Your task to perform on an android device: add a contact Image 0: 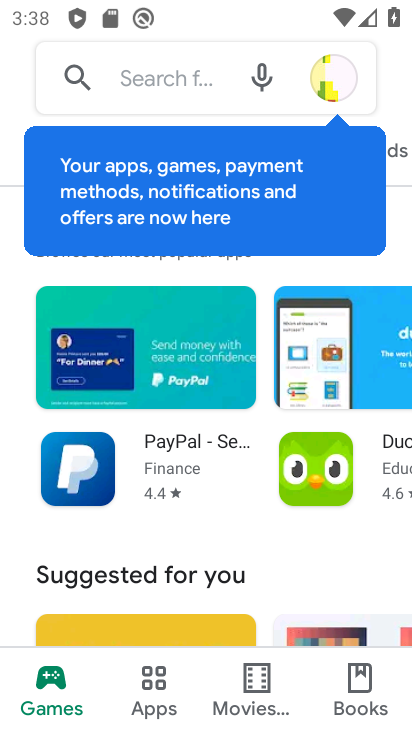
Step 0: press home button
Your task to perform on an android device: add a contact Image 1: 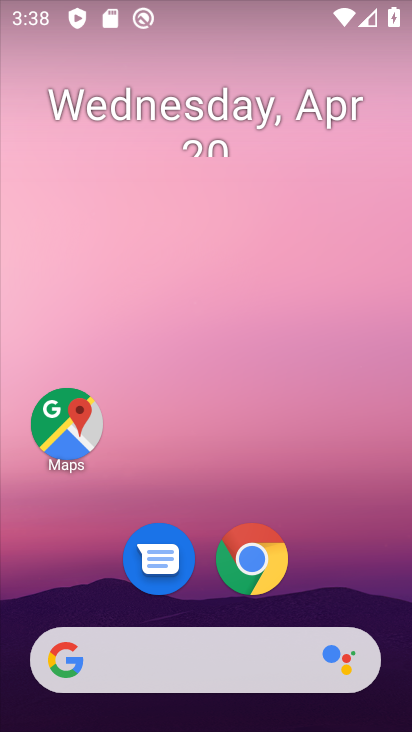
Step 1: drag from (189, 615) to (275, 77)
Your task to perform on an android device: add a contact Image 2: 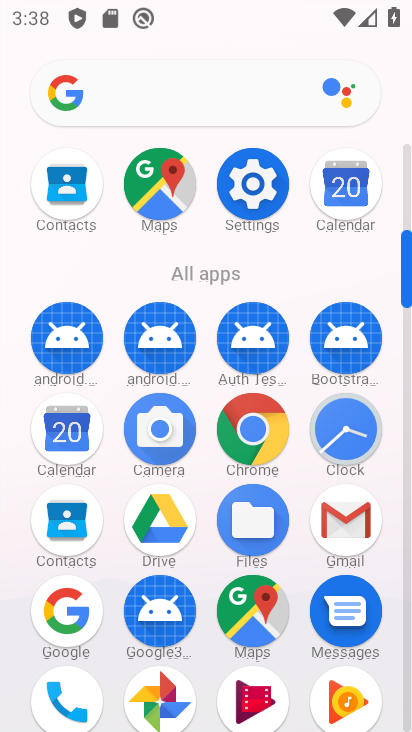
Step 2: drag from (201, 630) to (208, 421)
Your task to perform on an android device: add a contact Image 3: 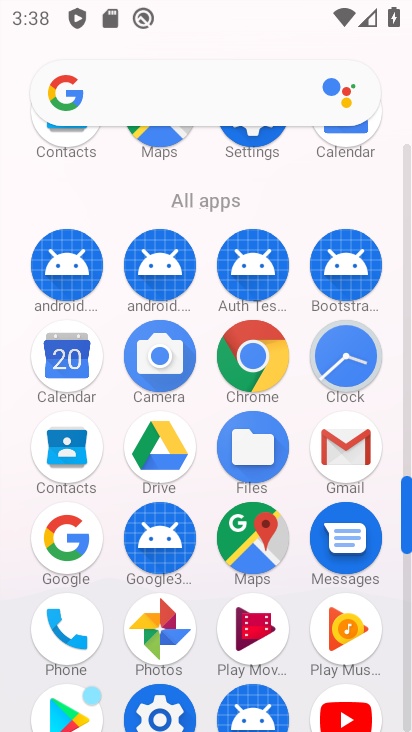
Step 3: drag from (200, 683) to (249, 280)
Your task to perform on an android device: add a contact Image 4: 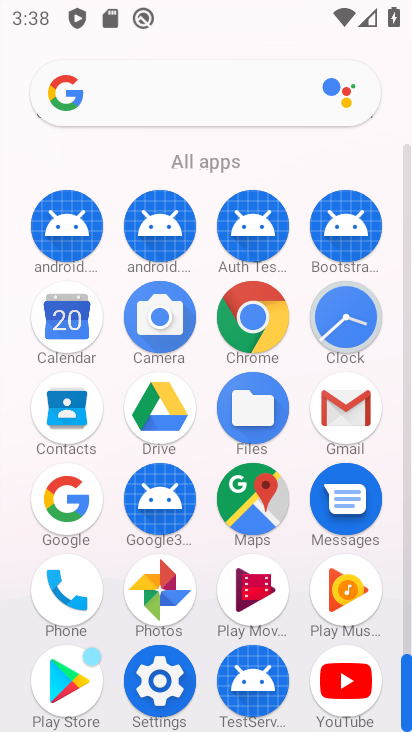
Step 4: click (64, 404)
Your task to perform on an android device: add a contact Image 5: 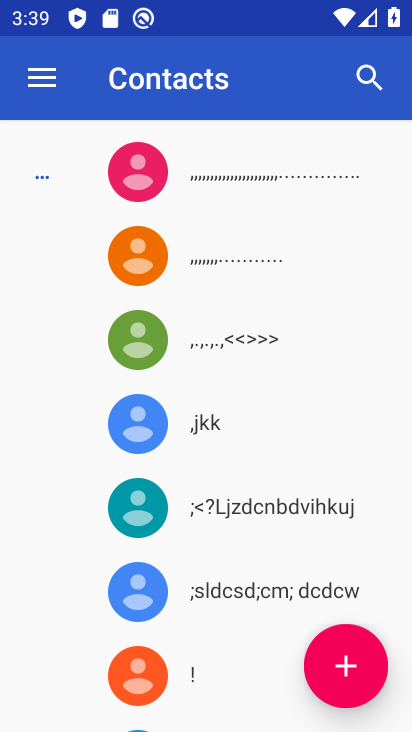
Step 5: click (336, 671)
Your task to perform on an android device: add a contact Image 6: 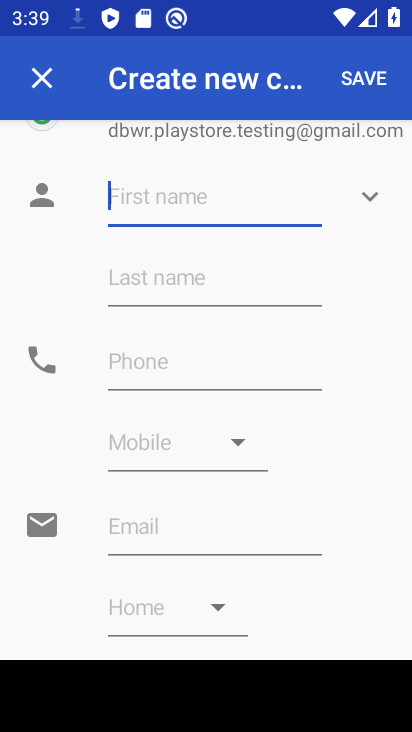
Step 6: click (191, 186)
Your task to perform on an android device: add a contact Image 7: 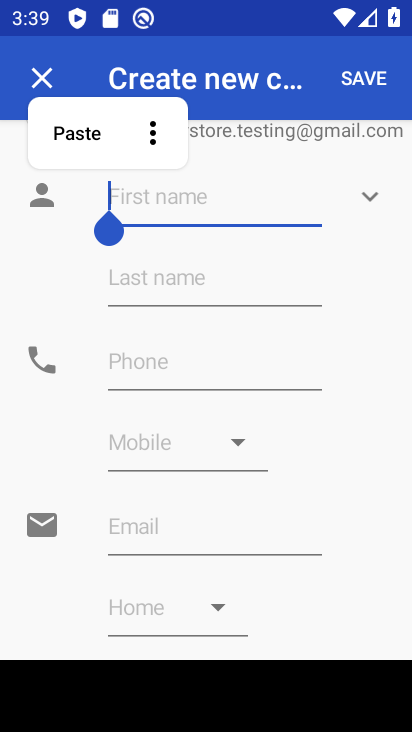
Step 7: type "dfsdvf"
Your task to perform on an android device: add a contact Image 8: 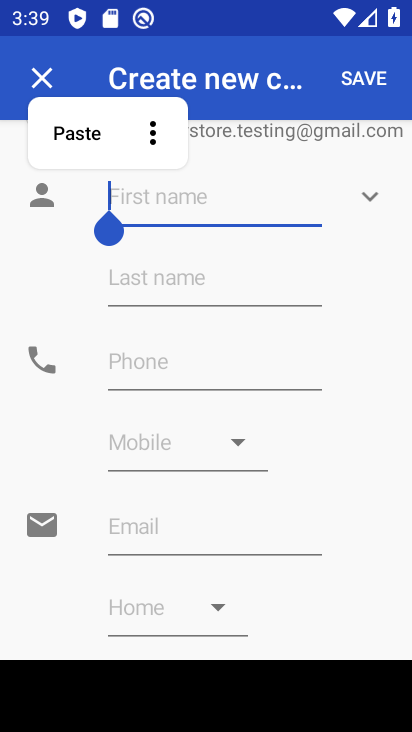
Step 8: click (162, 276)
Your task to perform on an android device: add a contact Image 9: 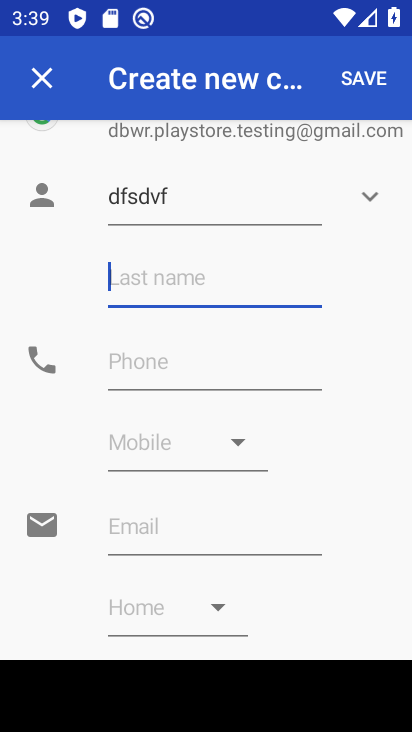
Step 9: type "dgfbgf"
Your task to perform on an android device: add a contact Image 10: 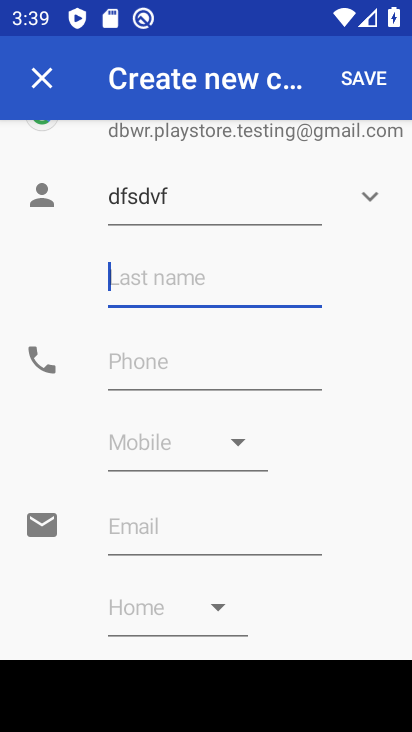
Step 10: click (223, 362)
Your task to perform on an android device: add a contact Image 11: 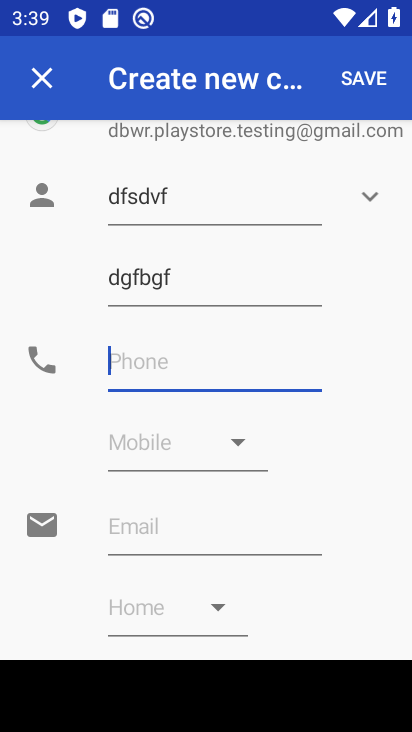
Step 11: type "354354"
Your task to perform on an android device: add a contact Image 12: 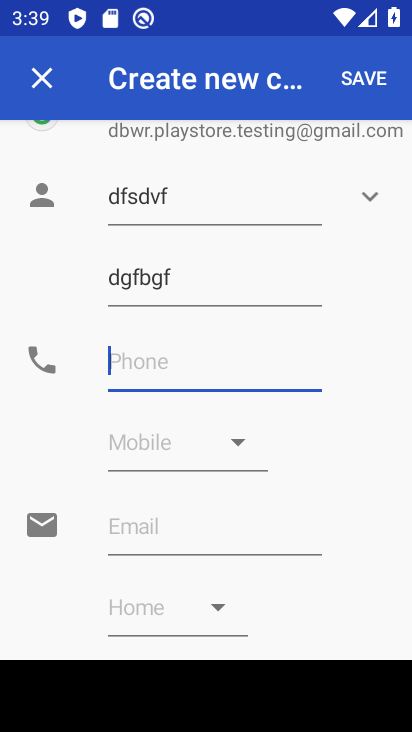
Step 12: click (178, 447)
Your task to perform on an android device: add a contact Image 13: 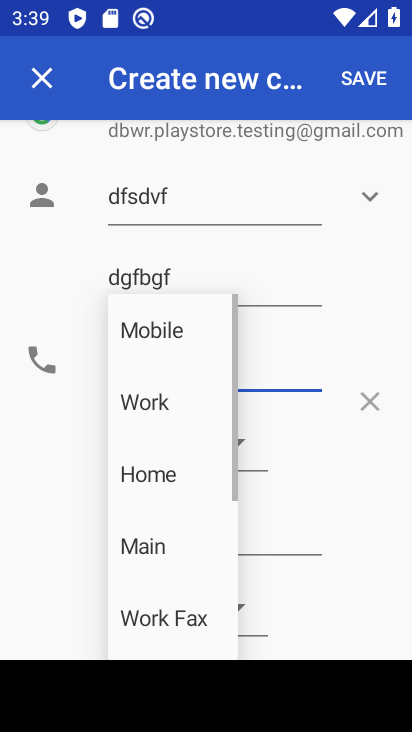
Step 13: click (369, 89)
Your task to perform on an android device: add a contact Image 14: 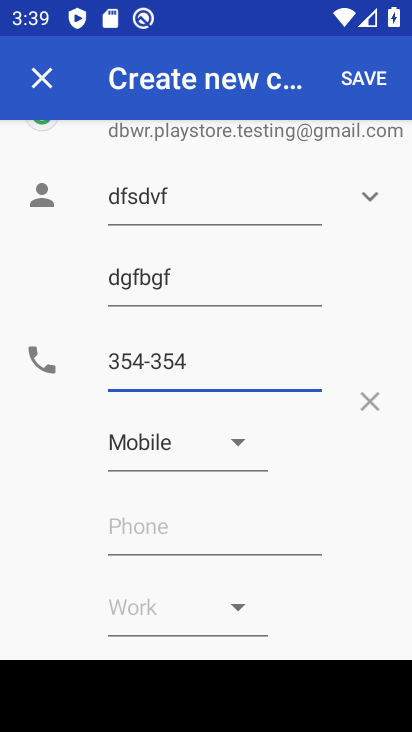
Step 14: click (361, 92)
Your task to perform on an android device: add a contact Image 15: 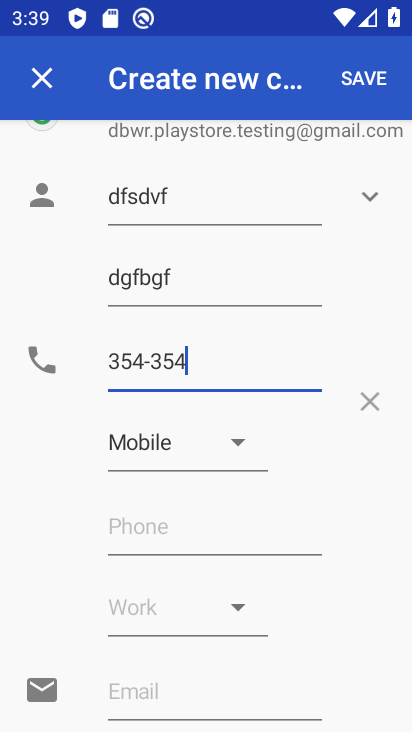
Step 15: click (372, 74)
Your task to perform on an android device: add a contact Image 16: 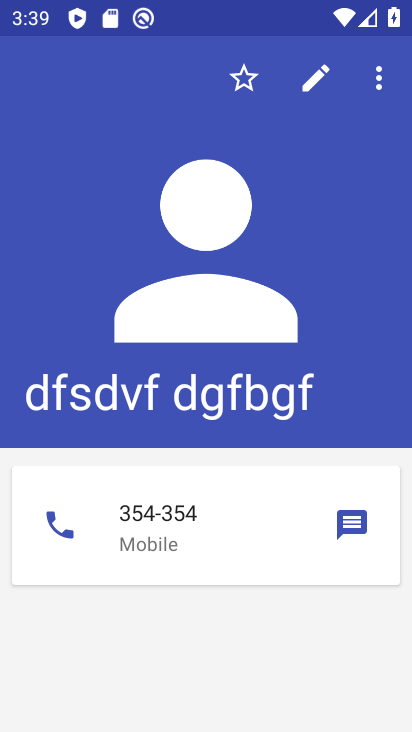
Step 16: task complete